Your task to perform on an android device: Open display settings Image 0: 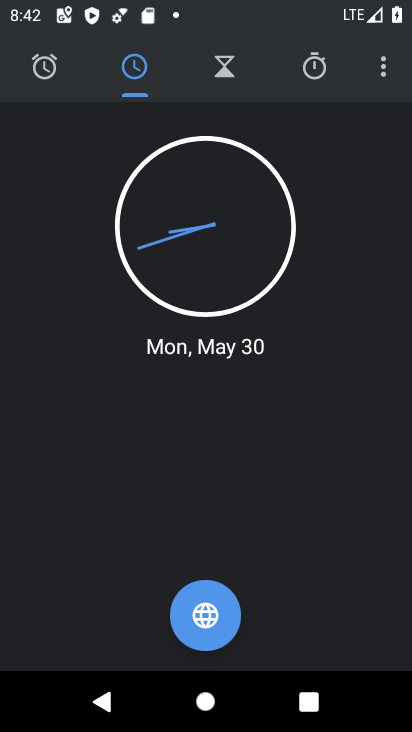
Step 0: press home button
Your task to perform on an android device: Open display settings Image 1: 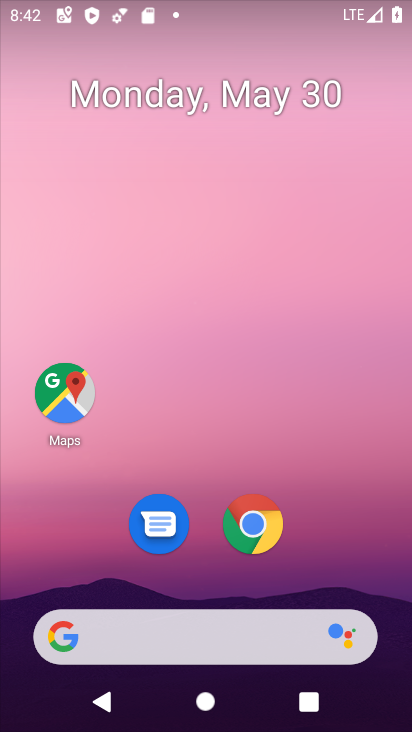
Step 1: drag from (324, 521) to (333, 9)
Your task to perform on an android device: Open display settings Image 2: 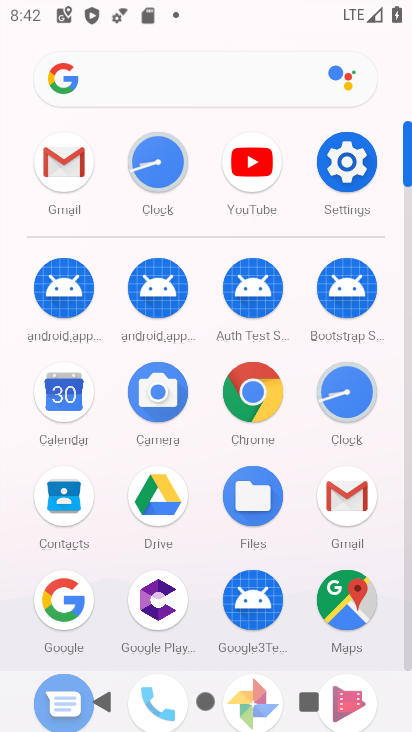
Step 2: click (343, 172)
Your task to perform on an android device: Open display settings Image 3: 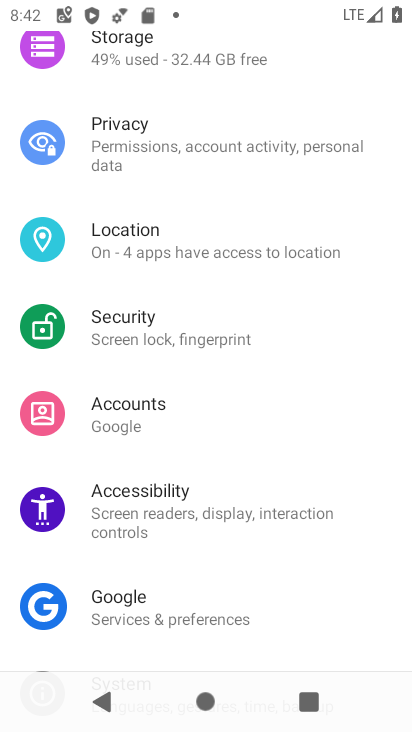
Step 3: drag from (207, 333) to (184, 627)
Your task to perform on an android device: Open display settings Image 4: 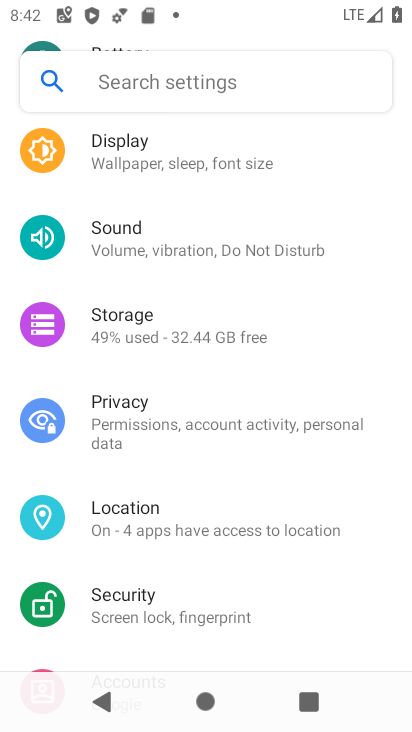
Step 4: click (226, 158)
Your task to perform on an android device: Open display settings Image 5: 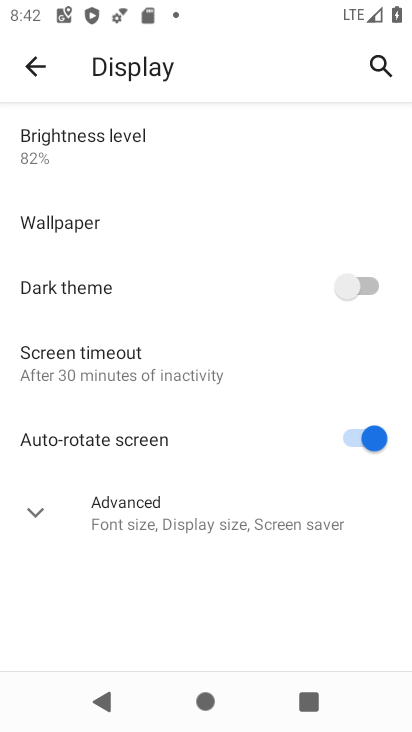
Step 5: click (38, 510)
Your task to perform on an android device: Open display settings Image 6: 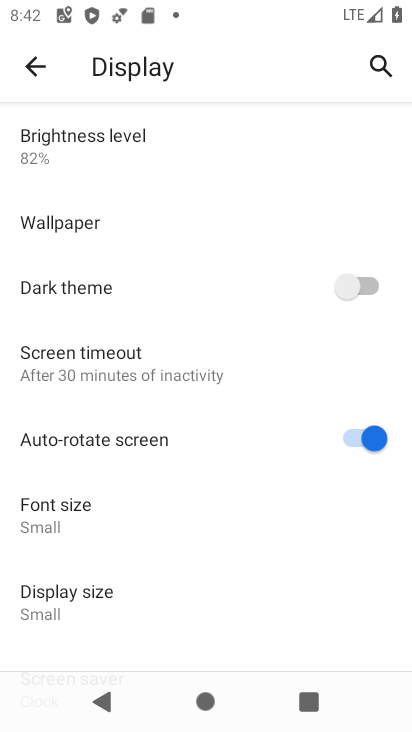
Step 6: task complete